Your task to perform on an android device: change the upload size in google photos Image 0: 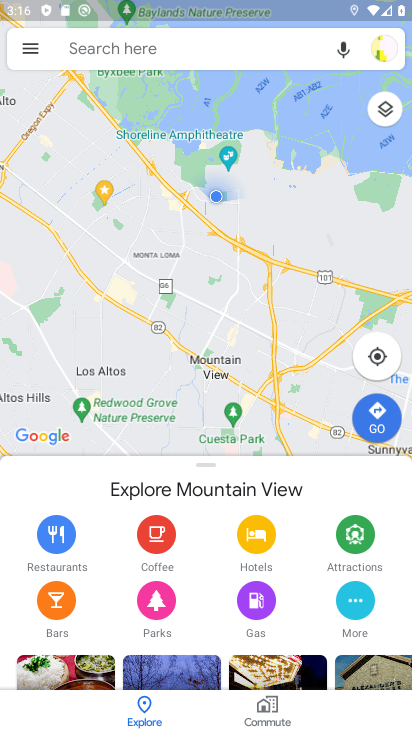
Step 0: press home button
Your task to perform on an android device: change the upload size in google photos Image 1: 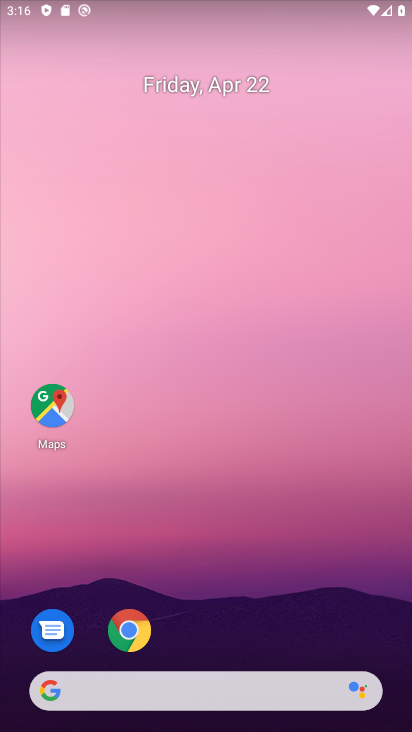
Step 1: drag from (179, 548) to (270, 9)
Your task to perform on an android device: change the upload size in google photos Image 2: 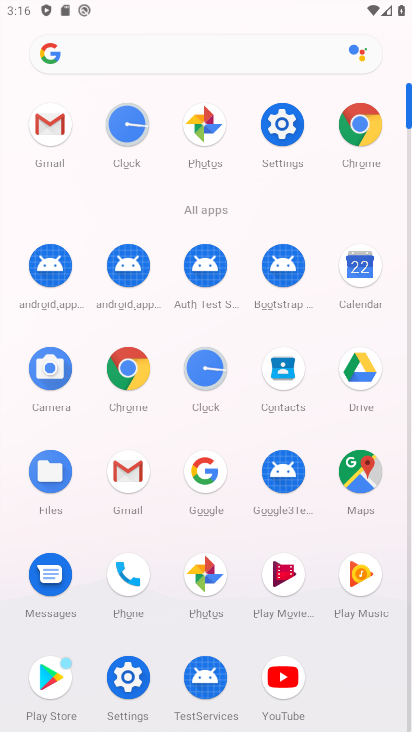
Step 2: click (212, 580)
Your task to perform on an android device: change the upload size in google photos Image 3: 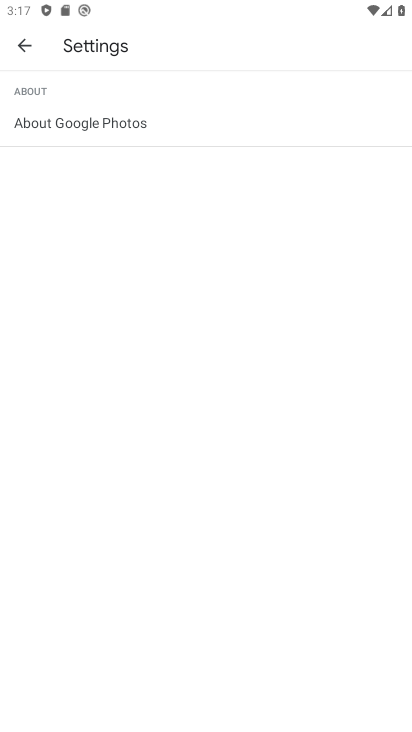
Step 3: click (26, 43)
Your task to perform on an android device: change the upload size in google photos Image 4: 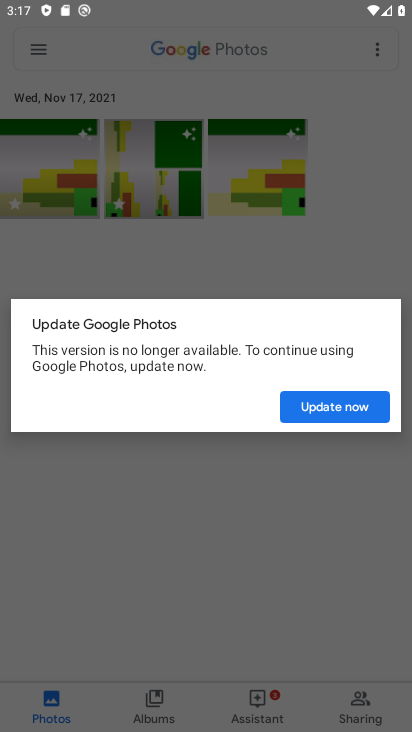
Step 4: click (309, 400)
Your task to perform on an android device: change the upload size in google photos Image 5: 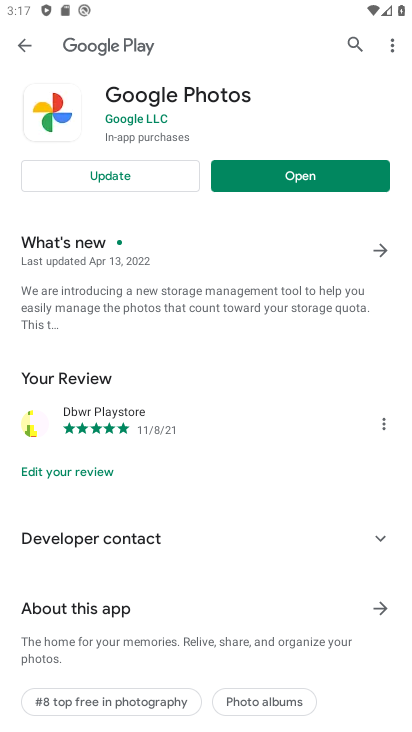
Step 5: click (267, 167)
Your task to perform on an android device: change the upload size in google photos Image 6: 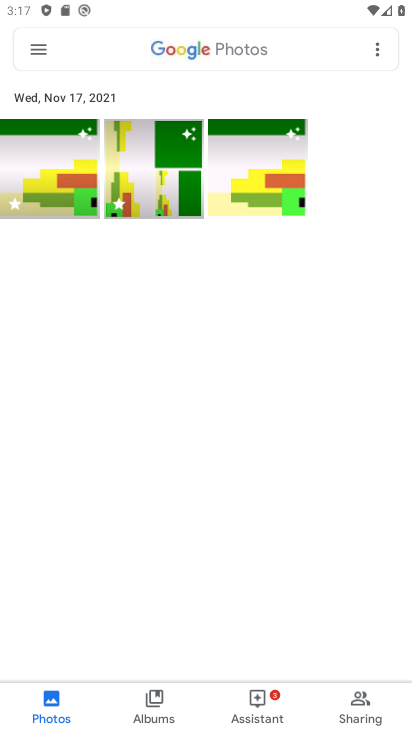
Step 6: click (35, 53)
Your task to perform on an android device: change the upload size in google photos Image 7: 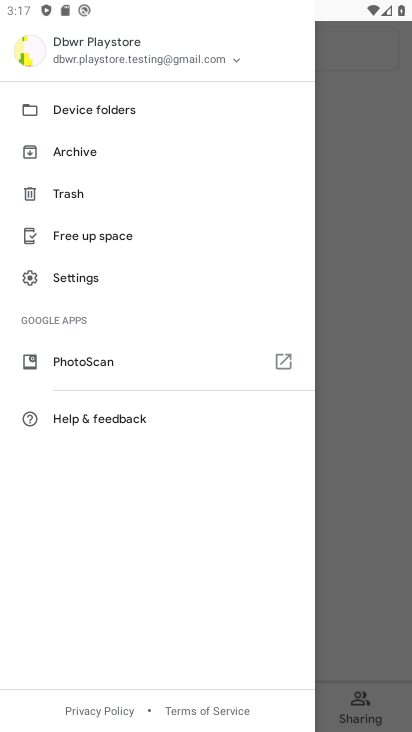
Step 7: click (78, 280)
Your task to perform on an android device: change the upload size in google photos Image 8: 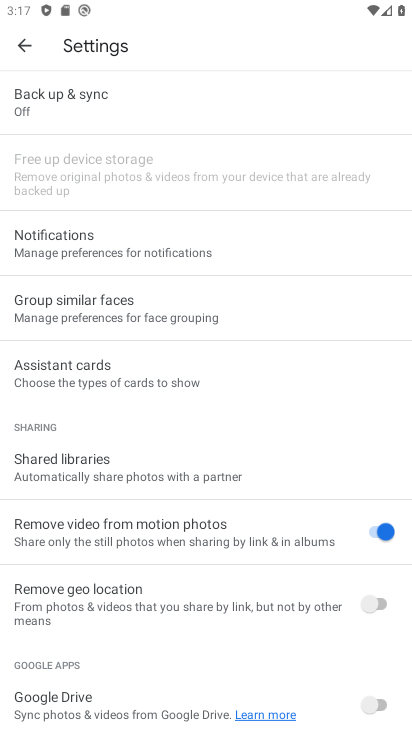
Step 8: click (94, 102)
Your task to perform on an android device: change the upload size in google photos Image 9: 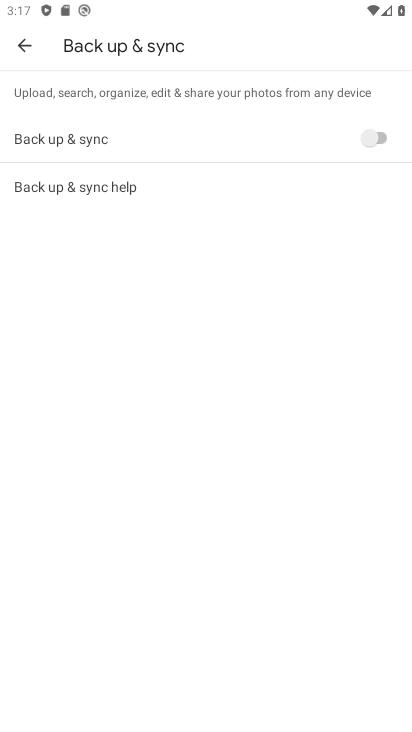
Step 9: click (118, 186)
Your task to perform on an android device: change the upload size in google photos Image 10: 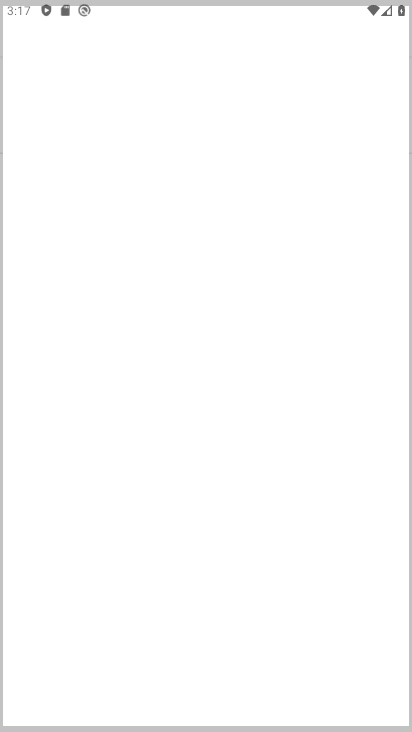
Step 10: click (37, 46)
Your task to perform on an android device: change the upload size in google photos Image 11: 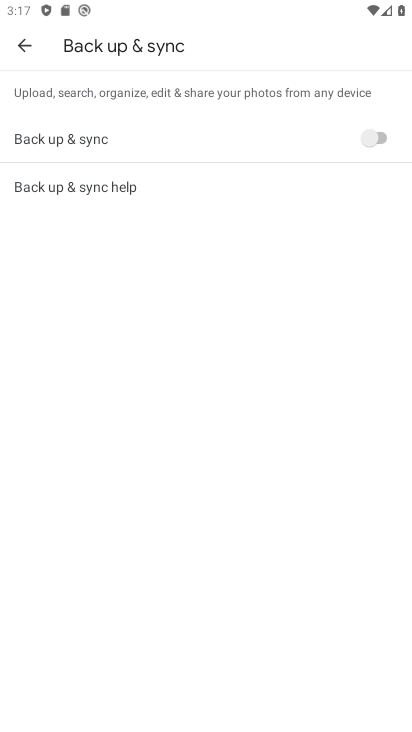
Step 11: click (25, 51)
Your task to perform on an android device: change the upload size in google photos Image 12: 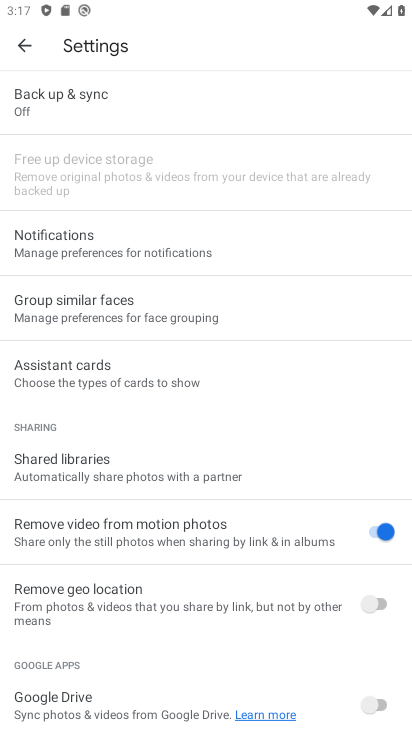
Step 12: click (63, 105)
Your task to perform on an android device: change the upload size in google photos Image 13: 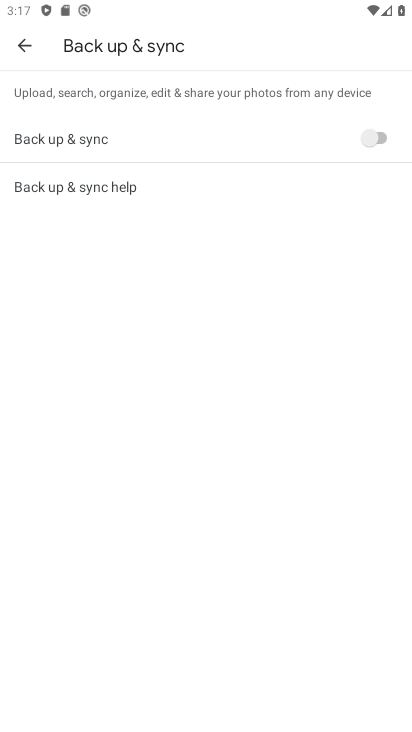
Step 13: click (358, 133)
Your task to perform on an android device: change the upload size in google photos Image 14: 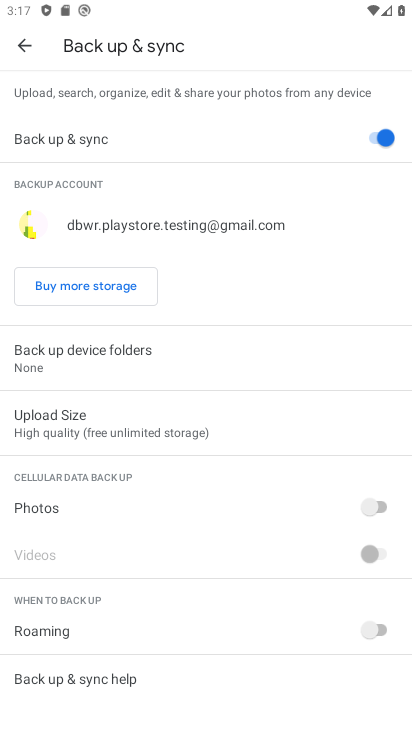
Step 14: click (147, 412)
Your task to perform on an android device: change the upload size in google photos Image 15: 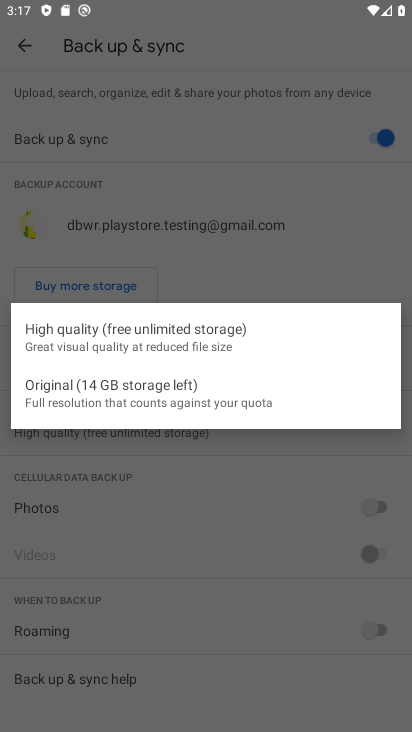
Step 15: click (117, 390)
Your task to perform on an android device: change the upload size in google photos Image 16: 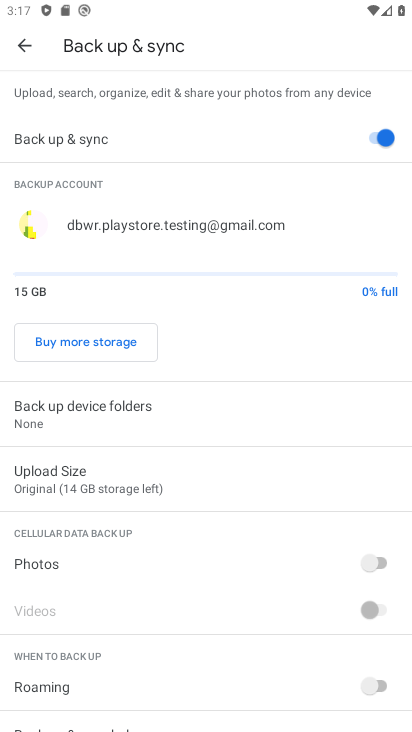
Step 16: task complete